Your task to perform on an android device: Open the map Image 0: 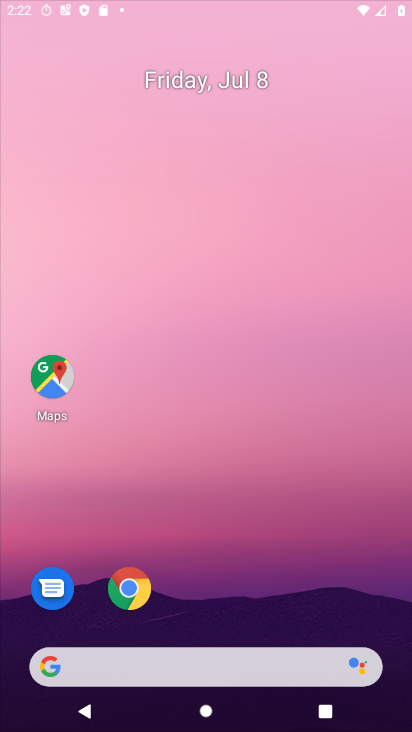
Step 0: press home button
Your task to perform on an android device: Open the map Image 1: 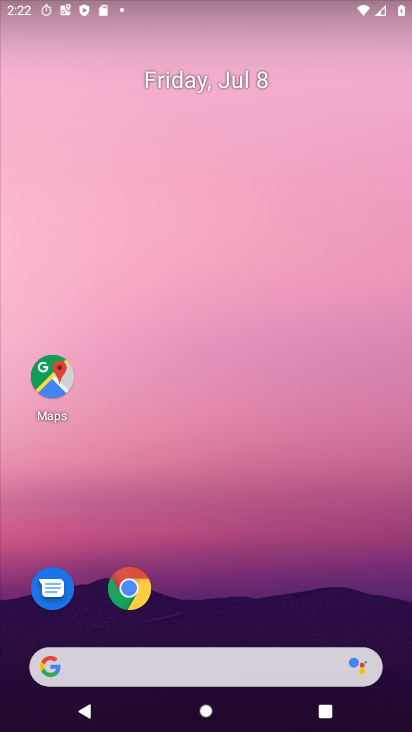
Step 1: drag from (265, 626) to (280, 105)
Your task to perform on an android device: Open the map Image 2: 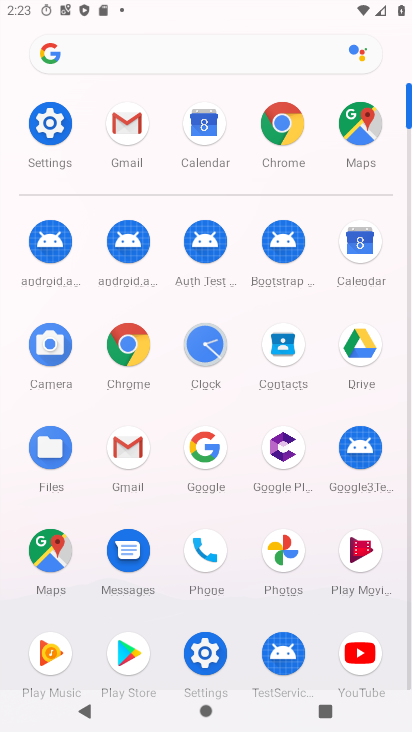
Step 2: click (358, 128)
Your task to perform on an android device: Open the map Image 3: 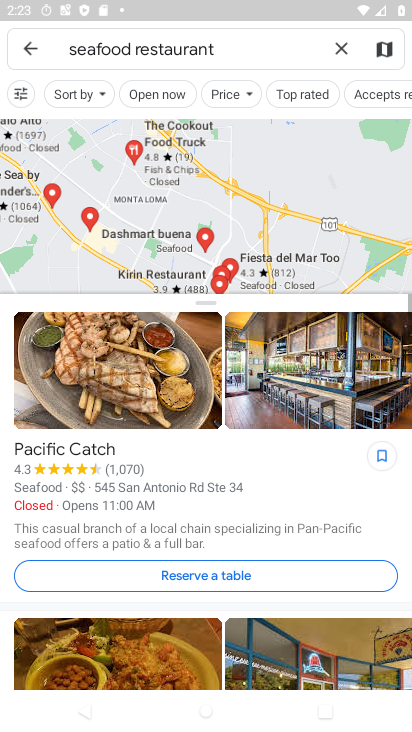
Step 3: task complete